Your task to perform on an android device: What is the news today? Image 0: 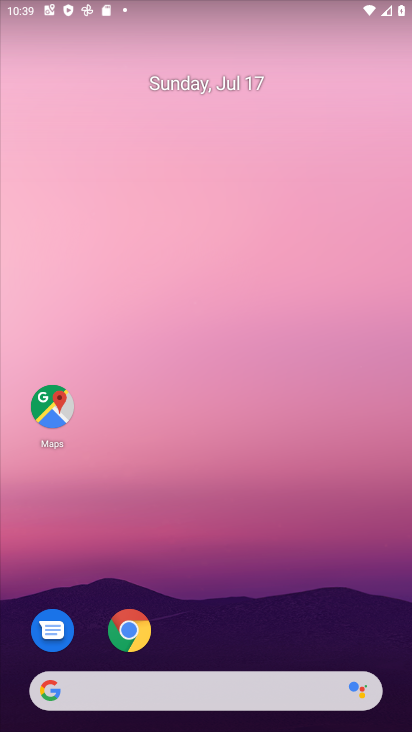
Step 0: drag from (255, 619) to (244, 260)
Your task to perform on an android device: What is the news today? Image 1: 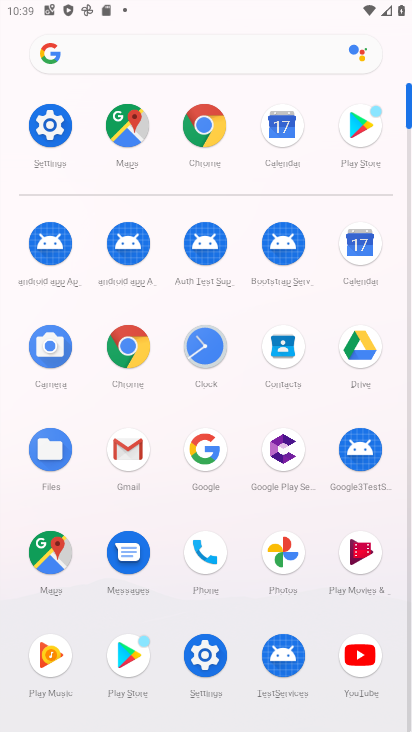
Step 1: click (234, 66)
Your task to perform on an android device: What is the news today? Image 2: 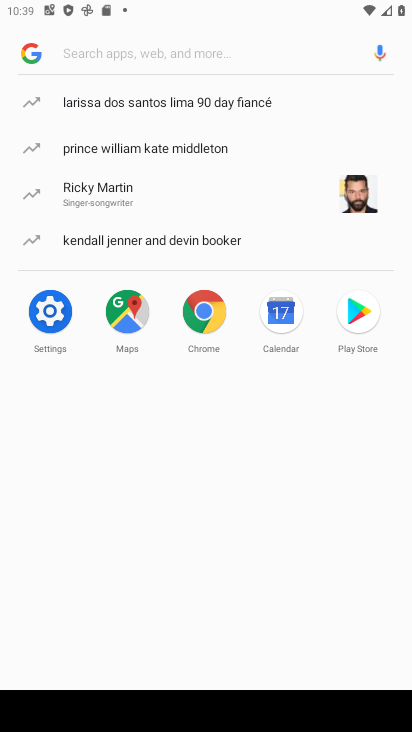
Step 2: type "news"
Your task to perform on an android device: What is the news today? Image 3: 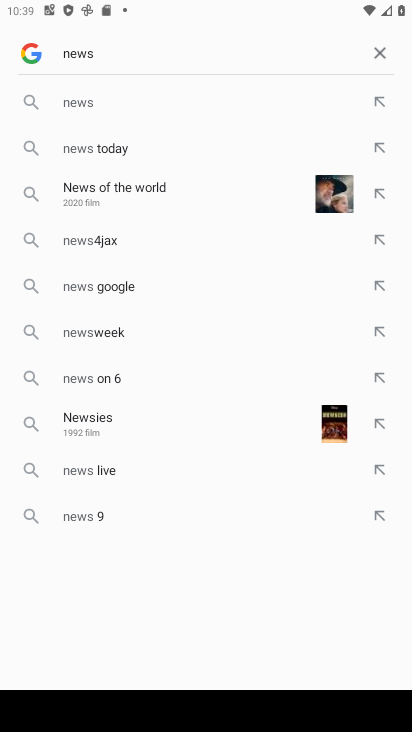
Step 3: click (181, 110)
Your task to perform on an android device: What is the news today? Image 4: 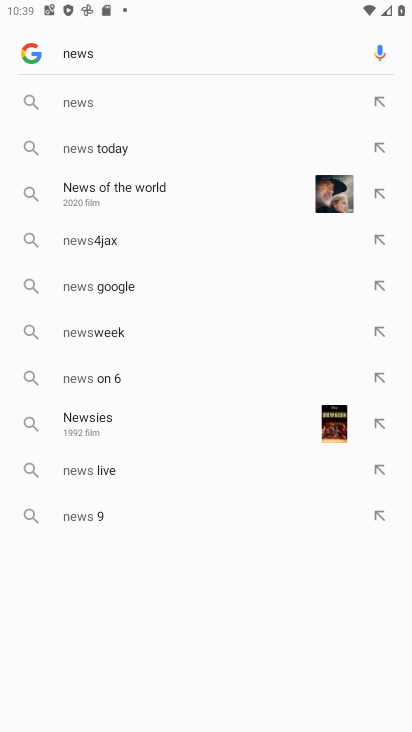
Step 4: task complete